Your task to perform on an android device: Open Wikipedia Image 0: 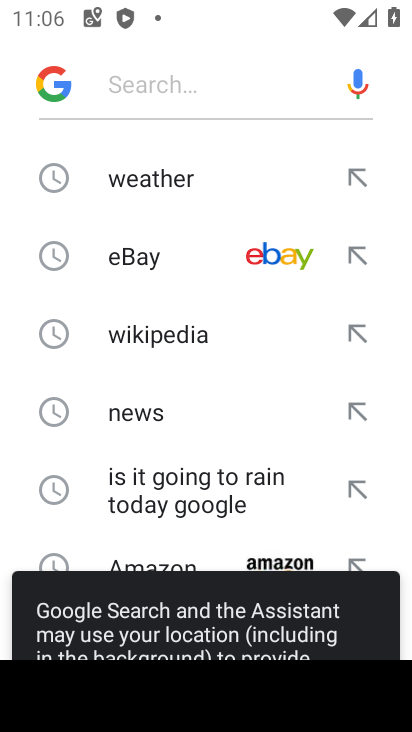
Step 0: press home button
Your task to perform on an android device: Open Wikipedia Image 1: 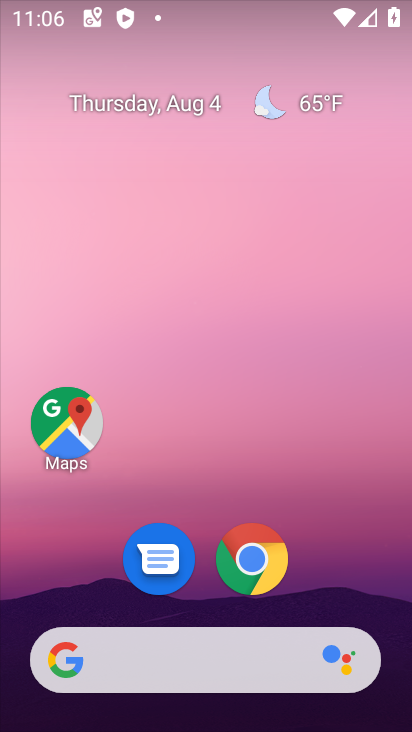
Step 1: click (246, 546)
Your task to perform on an android device: Open Wikipedia Image 2: 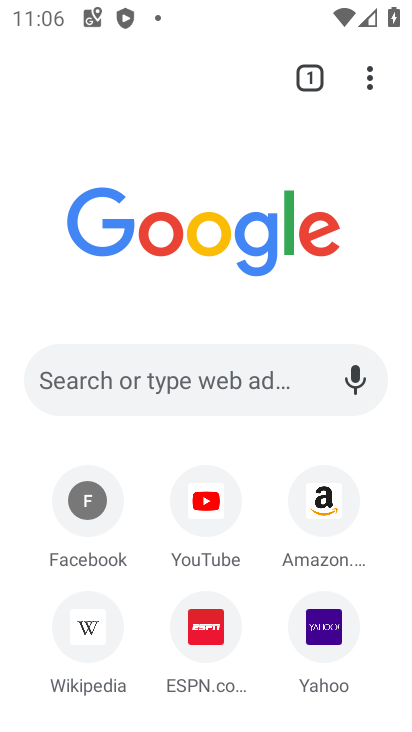
Step 2: click (102, 613)
Your task to perform on an android device: Open Wikipedia Image 3: 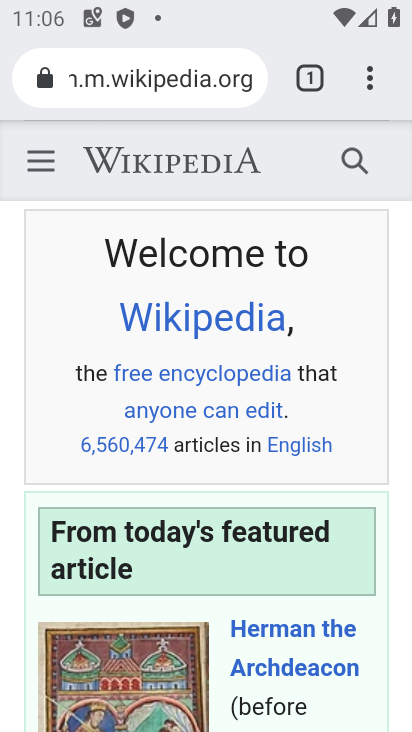
Step 3: task complete